Your task to perform on an android device: change the clock display to digital Image 0: 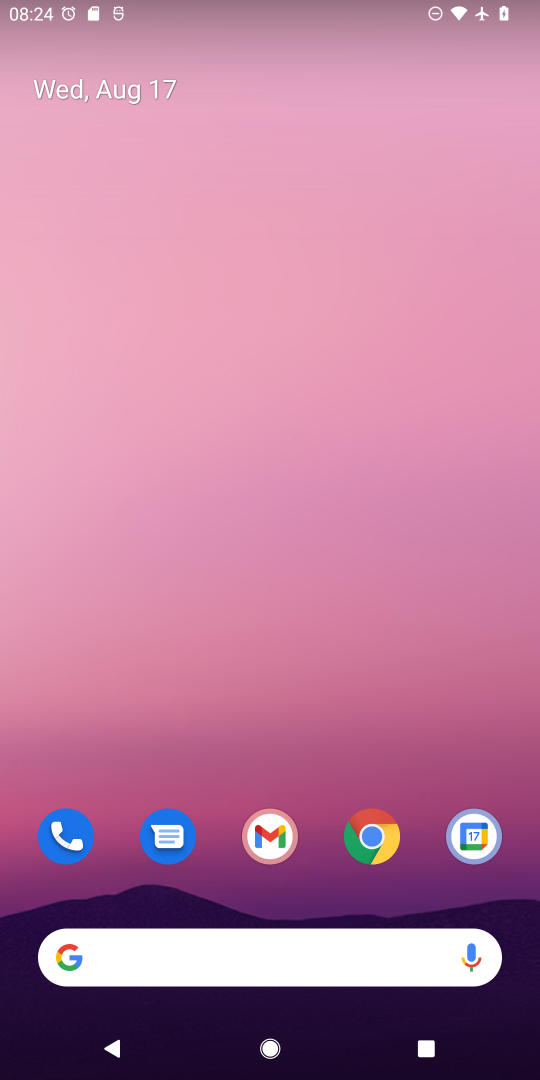
Step 0: drag from (317, 867) to (317, 665)
Your task to perform on an android device: change the clock display to digital Image 1: 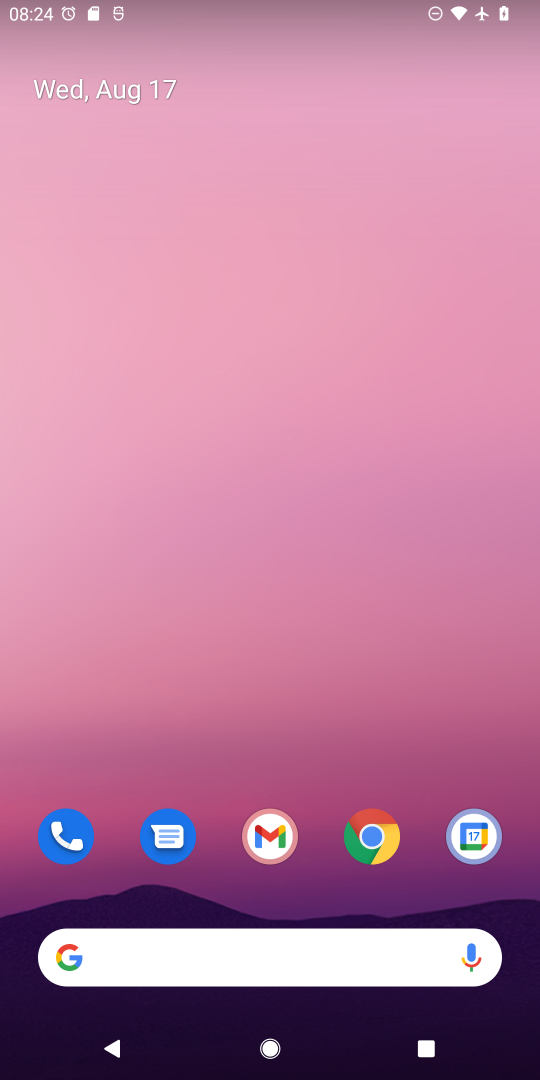
Step 1: drag from (283, 968) to (264, 280)
Your task to perform on an android device: change the clock display to digital Image 2: 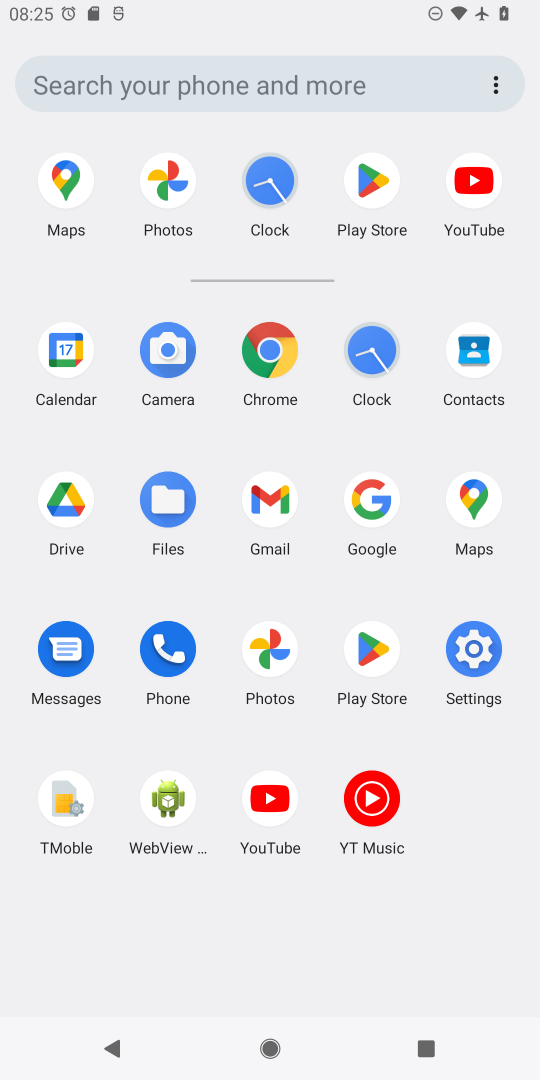
Step 2: click (376, 350)
Your task to perform on an android device: change the clock display to digital Image 3: 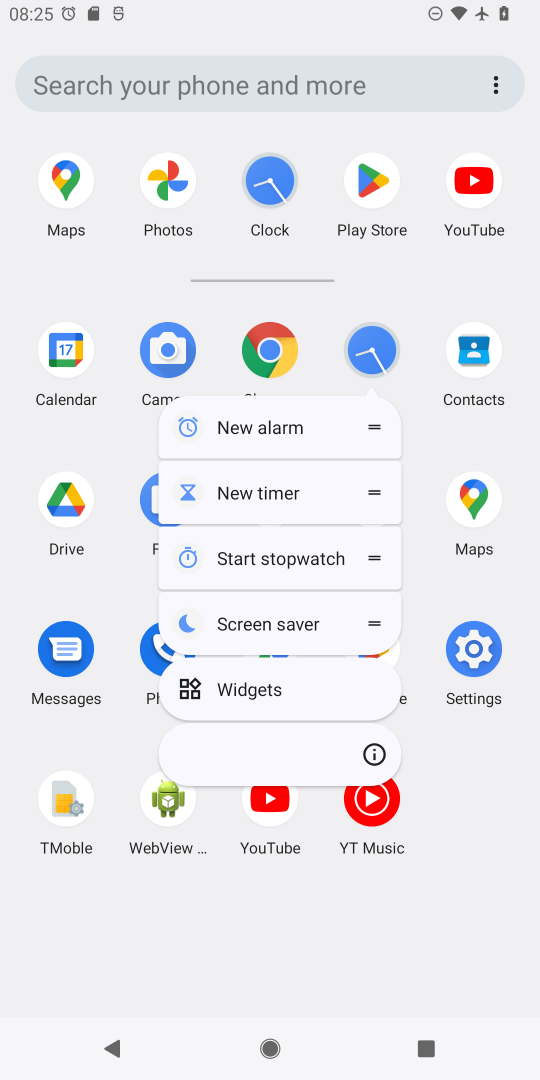
Step 3: click (376, 350)
Your task to perform on an android device: change the clock display to digital Image 4: 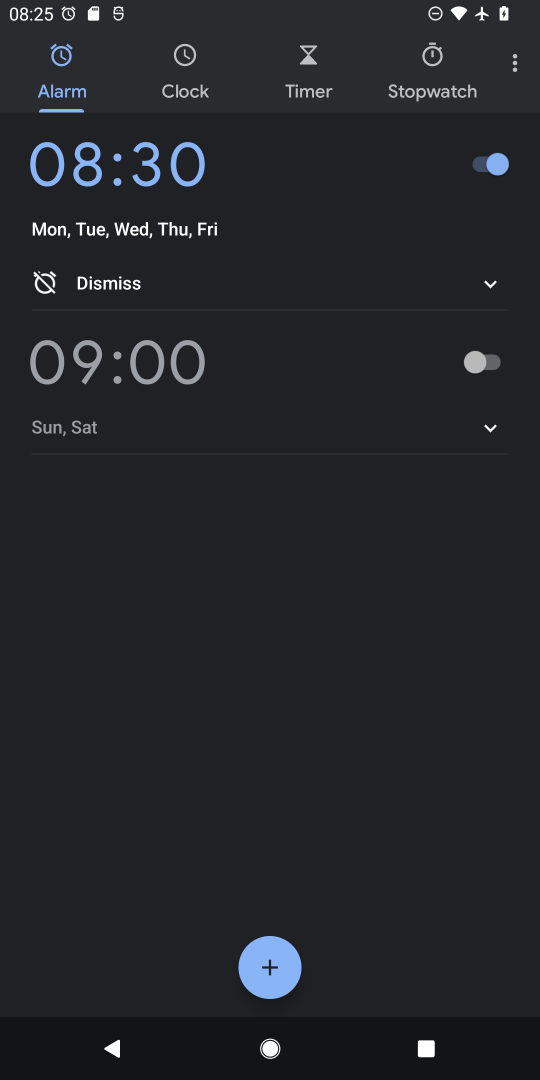
Step 4: click (521, 60)
Your task to perform on an android device: change the clock display to digital Image 5: 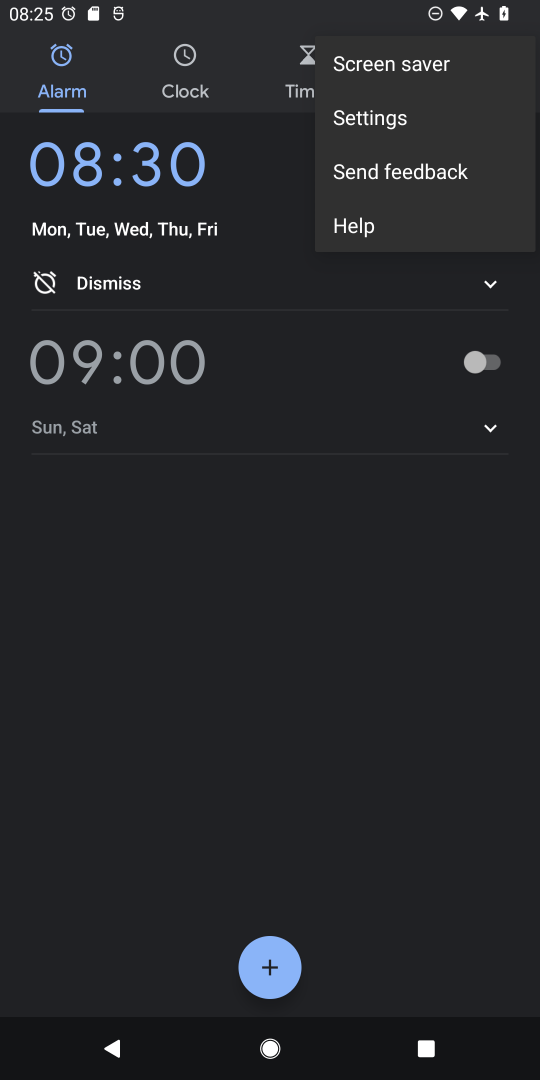
Step 5: click (362, 111)
Your task to perform on an android device: change the clock display to digital Image 6: 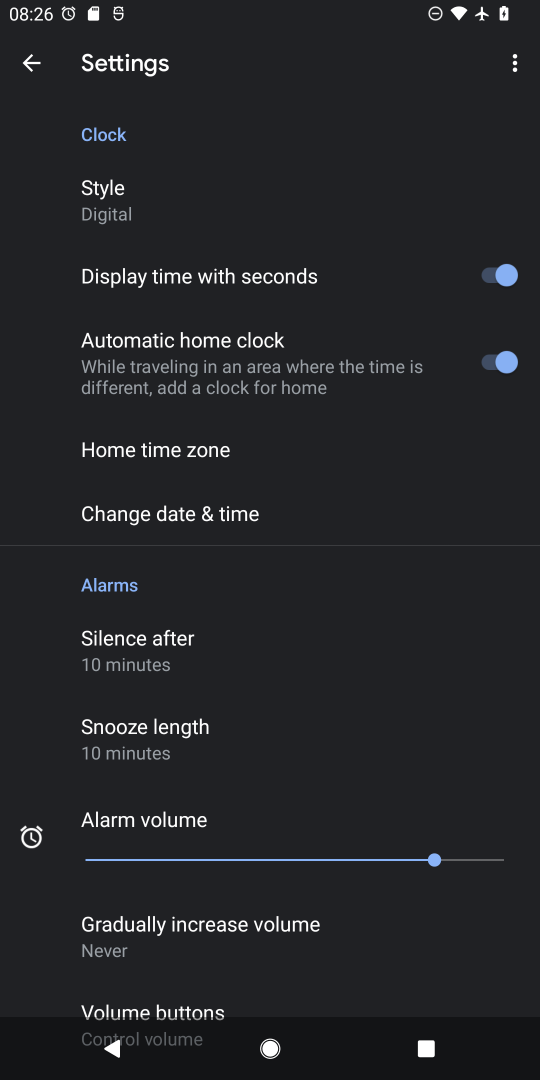
Step 6: task complete